Your task to perform on an android device: show emergency info Image 0: 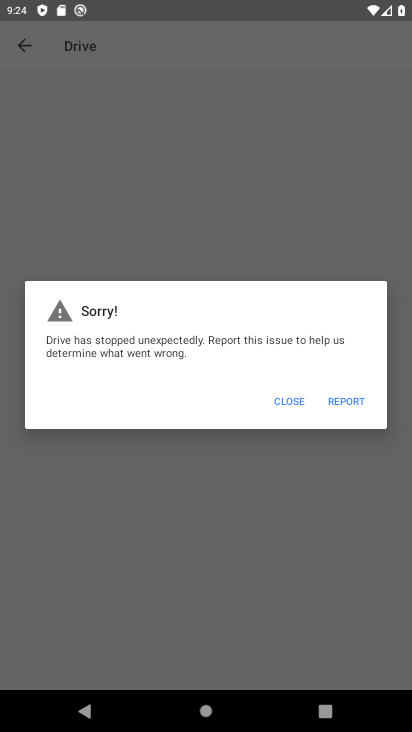
Step 0: press home button
Your task to perform on an android device: show emergency info Image 1: 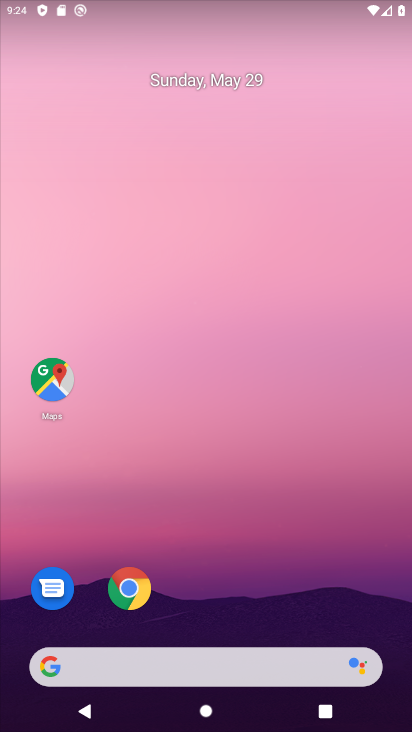
Step 1: drag from (16, 668) to (310, 101)
Your task to perform on an android device: show emergency info Image 2: 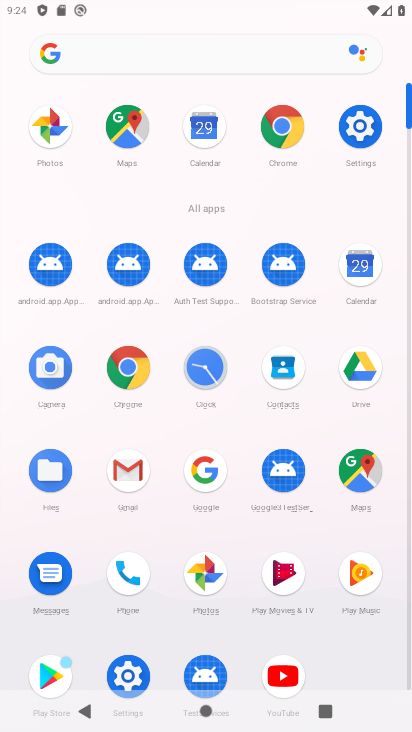
Step 2: click (345, 126)
Your task to perform on an android device: show emergency info Image 3: 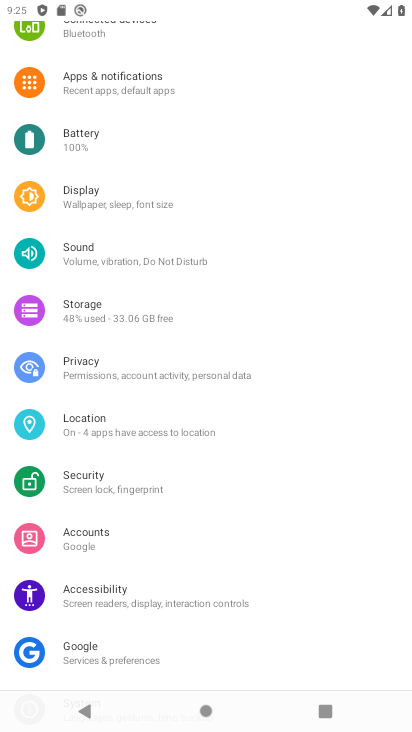
Step 3: drag from (17, 605) to (240, 70)
Your task to perform on an android device: show emergency info Image 4: 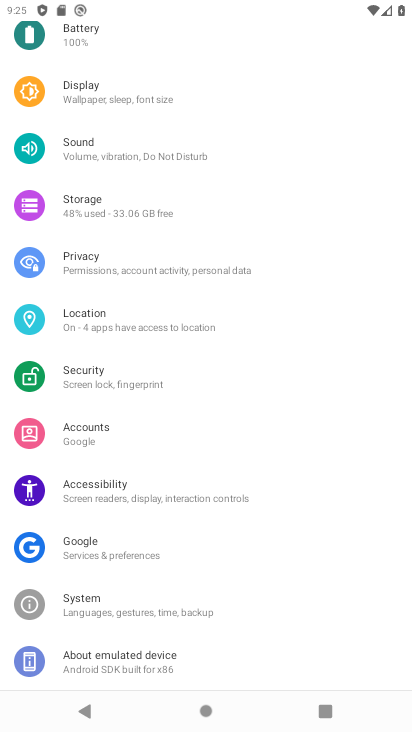
Step 4: click (74, 660)
Your task to perform on an android device: show emergency info Image 5: 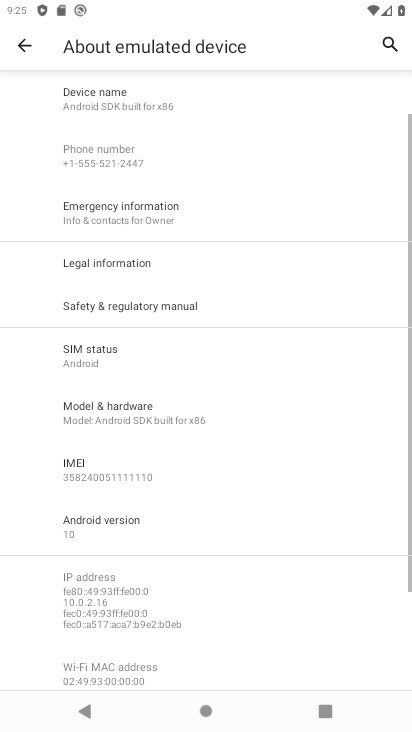
Step 5: click (129, 225)
Your task to perform on an android device: show emergency info Image 6: 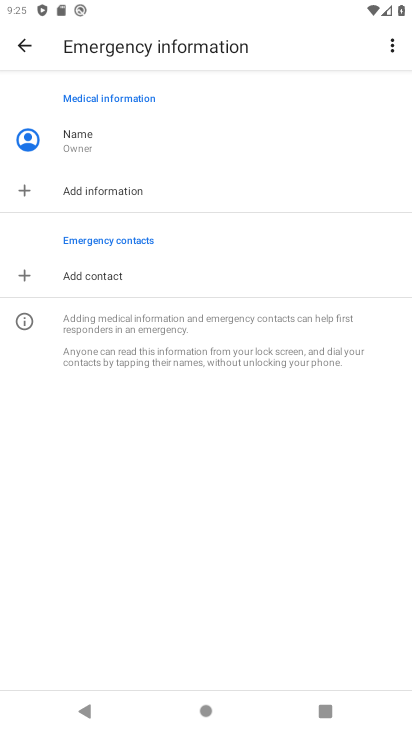
Step 6: task complete